Your task to perform on an android device: delete the emails in spam in the gmail app Image 0: 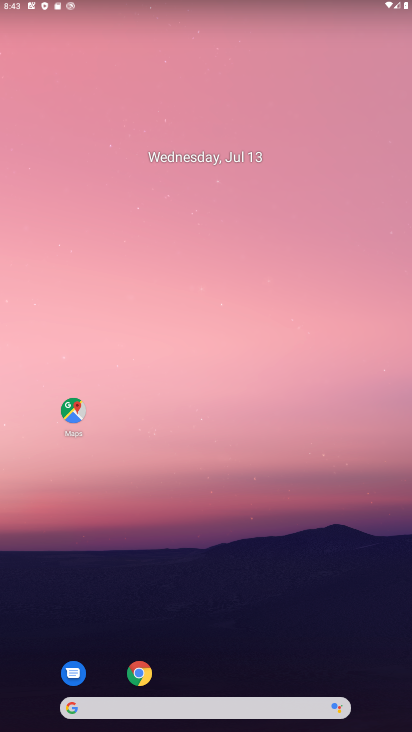
Step 0: drag from (242, 570) to (320, 85)
Your task to perform on an android device: delete the emails in spam in the gmail app Image 1: 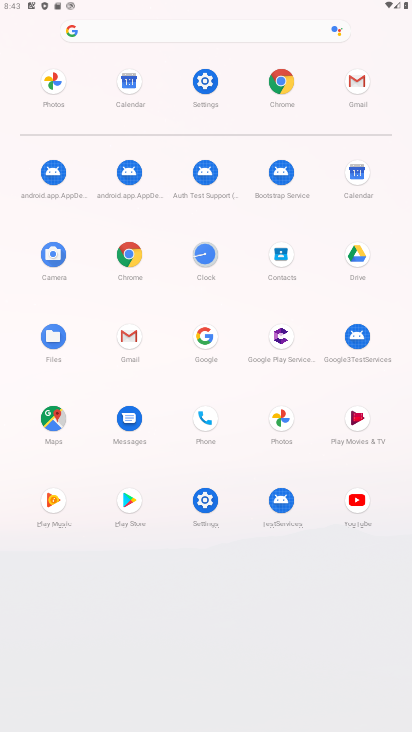
Step 1: click (360, 81)
Your task to perform on an android device: delete the emails in spam in the gmail app Image 2: 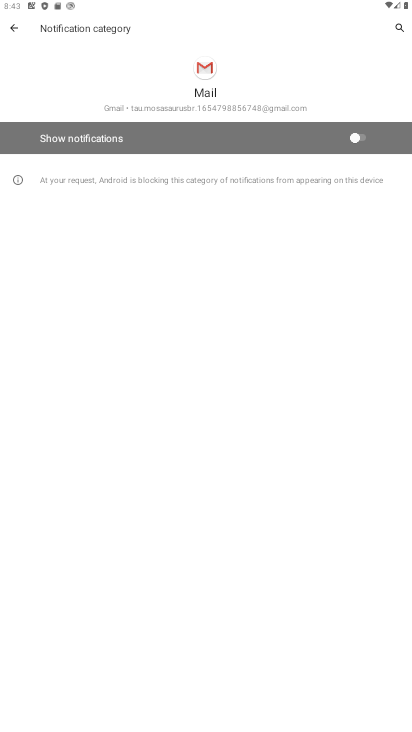
Step 2: click (20, 25)
Your task to perform on an android device: delete the emails in spam in the gmail app Image 3: 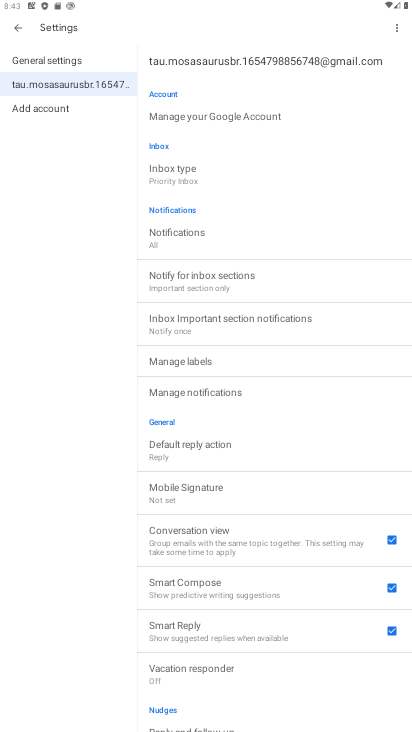
Step 3: click (25, 31)
Your task to perform on an android device: delete the emails in spam in the gmail app Image 4: 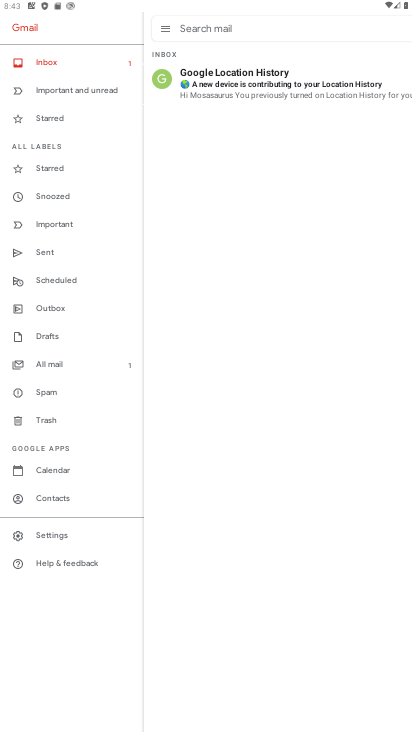
Step 4: click (53, 392)
Your task to perform on an android device: delete the emails in spam in the gmail app Image 5: 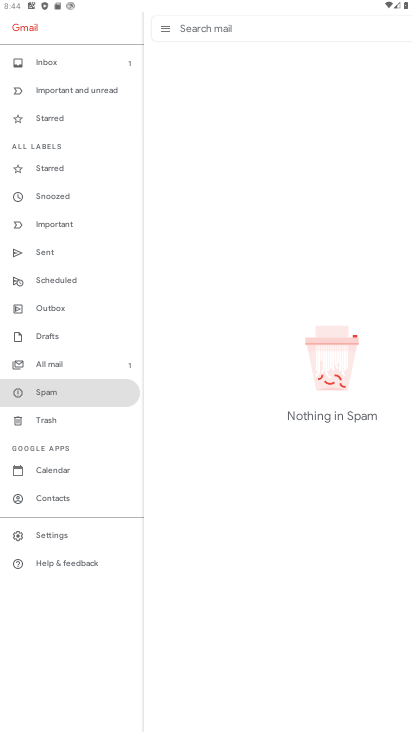
Step 5: task complete